Your task to perform on an android device: Open Amazon Image 0: 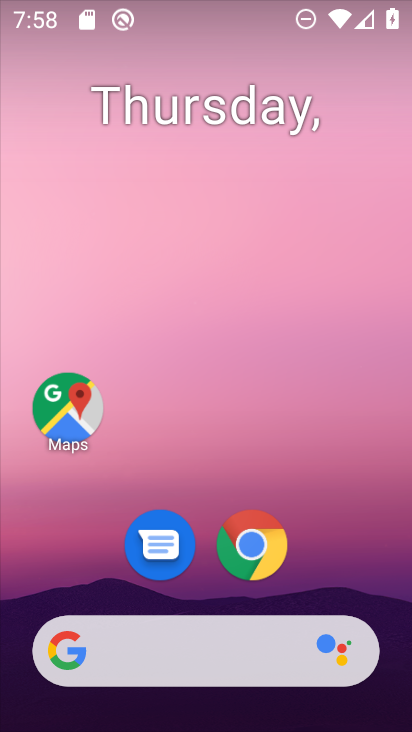
Step 0: click (253, 544)
Your task to perform on an android device: Open Amazon Image 1: 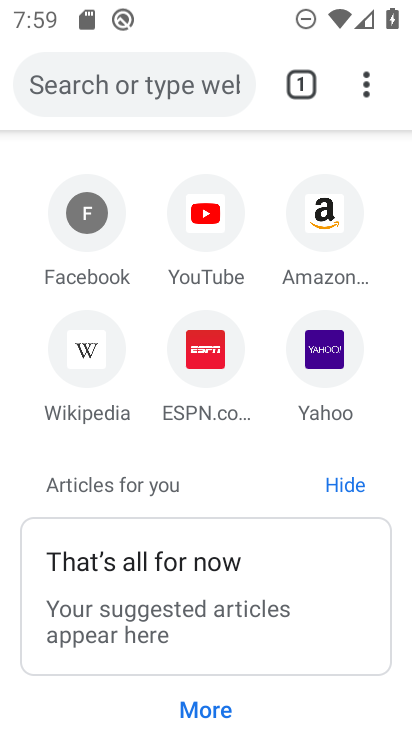
Step 1: click (326, 213)
Your task to perform on an android device: Open Amazon Image 2: 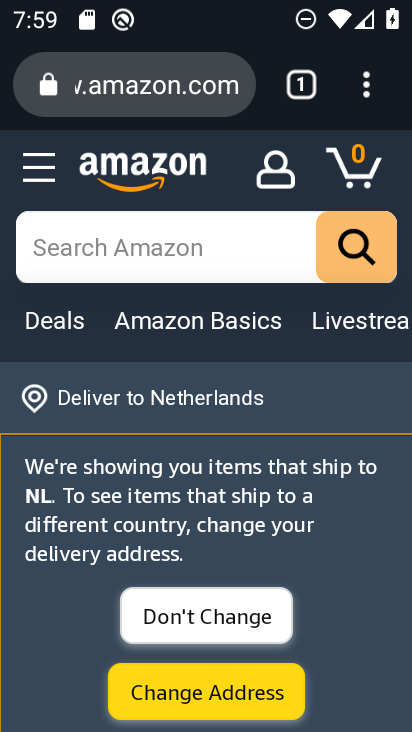
Step 2: task complete